Your task to perform on an android device: Open Google Image 0: 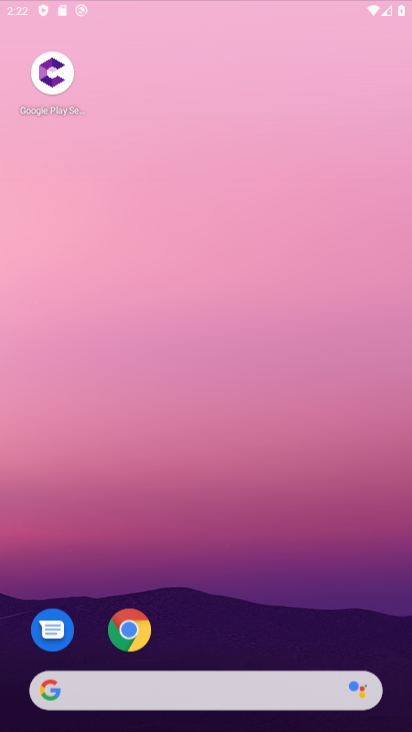
Step 0: press home button
Your task to perform on an android device: Open Google Image 1: 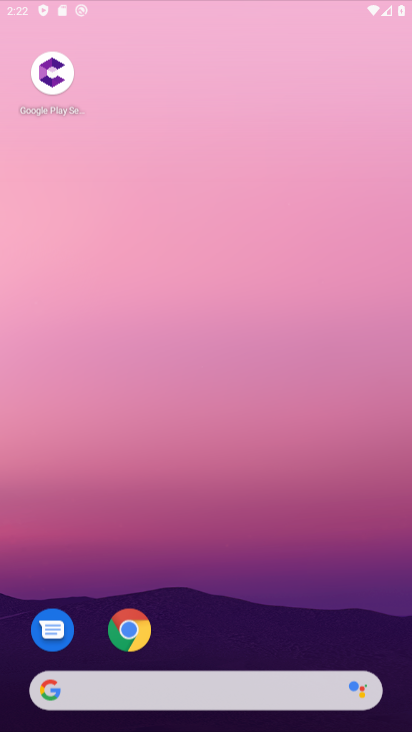
Step 1: click (261, 601)
Your task to perform on an android device: Open Google Image 2: 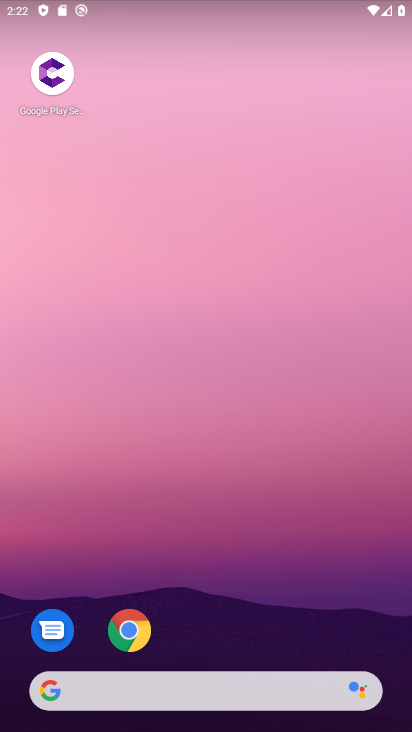
Step 2: drag from (215, 3) to (283, 730)
Your task to perform on an android device: Open Google Image 3: 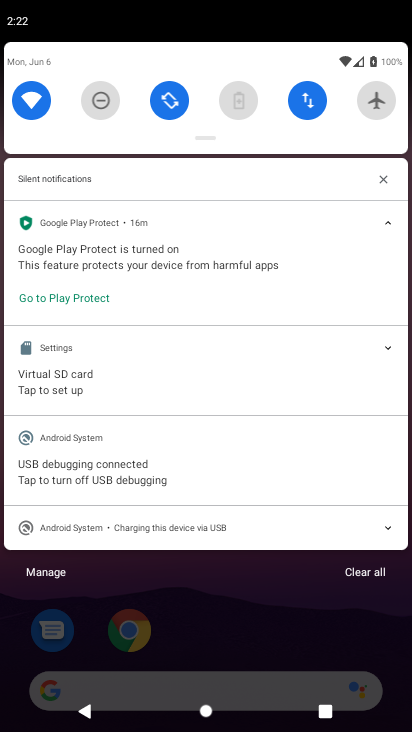
Step 3: click (292, 625)
Your task to perform on an android device: Open Google Image 4: 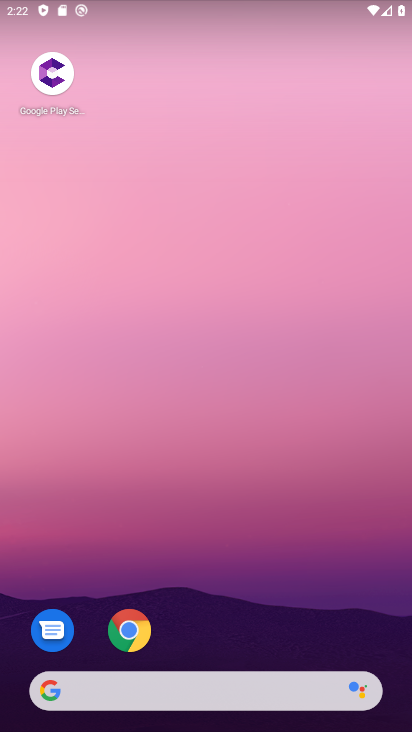
Step 4: drag from (340, 527) to (375, 2)
Your task to perform on an android device: Open Google Image 5: 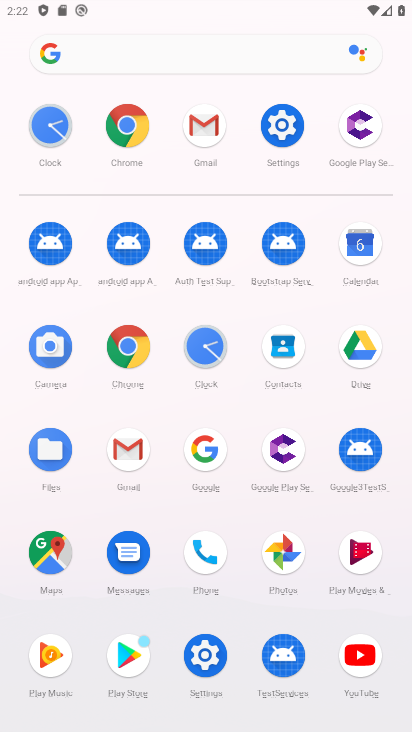
Step 5: click (217, 424)
Your task to perform on an android device: Open Google Image 6: 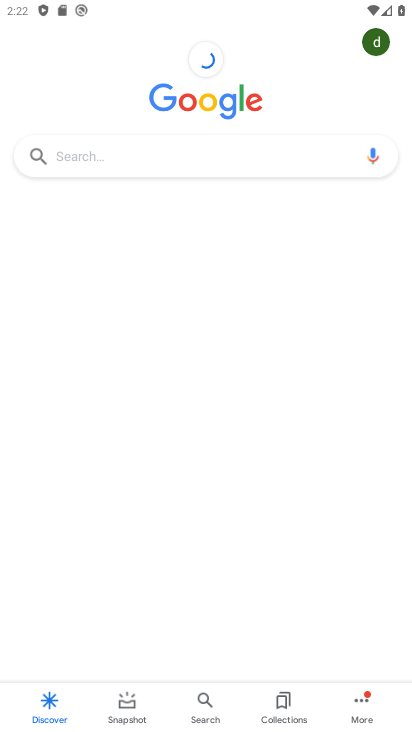
Step 6: task complete